Your task to perform on an android device: Search for "alienware area 51" on bestbuy.com, select the first entry, add it to the cart, then select checkout. Image 0: 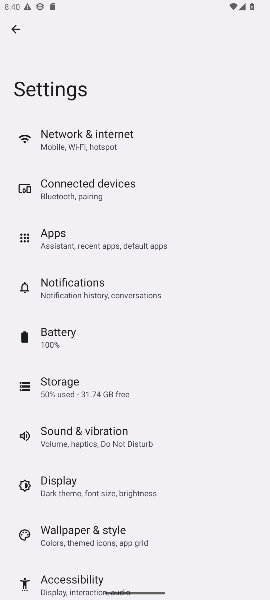
Step 0: press home button
Your task to perform on an android device: Search for "alienware area 51" on bestbuy.com, select the first entry, add it to the cart, then select checkout. Image 1: 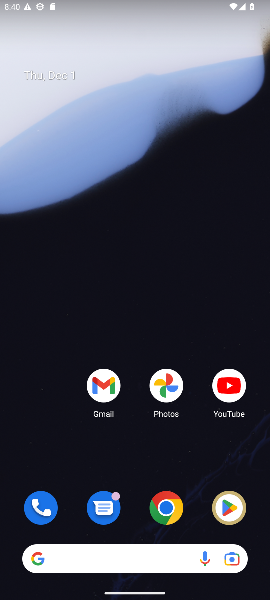
Step 1: click (165, 511)
Your task to perform on an android device: Search for "alienware area 51" on bestbuy.com, select the first entry, add it to the cart, then select checkout. Image 2: 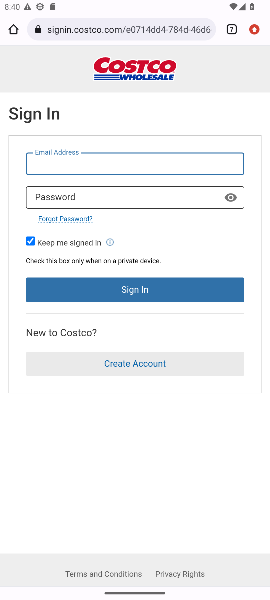
Step 2: click (230, 29)
Your task to perform on an android device: Search for "alienware area 51" on bestbuy.com, select the first entry, add it to the cart, then select checkout. Image 3: 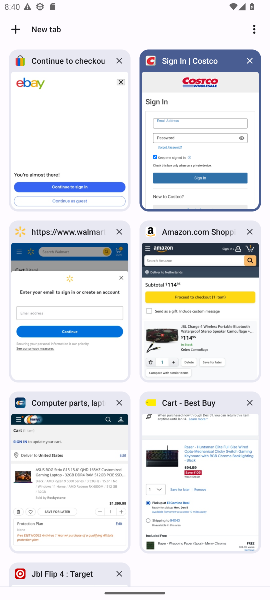
Step 3: click (184, 428)
Your task to perform on an android device: Search for "alienware area 51" on bestbuy.com, select the first entry, add it to the cart, then select checkout. Image 4: 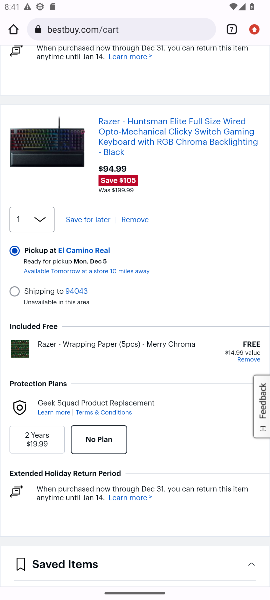
Step 4: drag from (134, 92) to (119, 383)
Your task to perform on an android device: Search for "alienware area 51" on bestbuy.com, select the first entry, add it to the cart, then select checkout. Image 5: 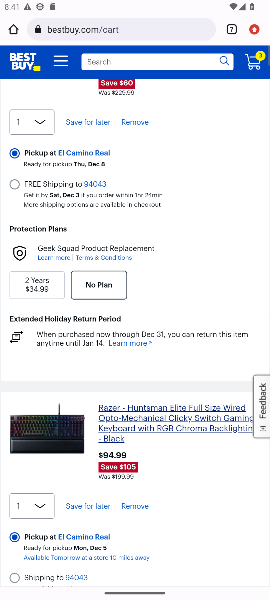
Step 5: click (109, 64)
Your task to perform on an android device: Search for "alienware area 51" on bestbuy.com, select the first entry, add it to the cart, then select checkout. Image 6: 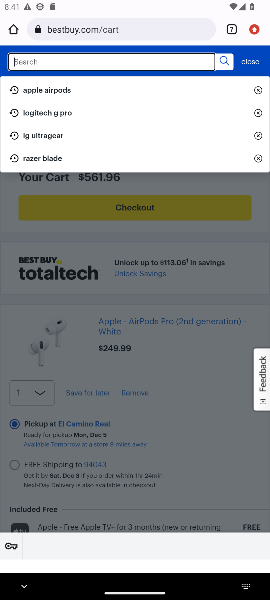
Step 6: type "alienware area 51"
Your task to perform on an android device: Search for "alienware area 51" on bestbuy.com, select the first entry, add it to the cart, then select checkout. Image 7: 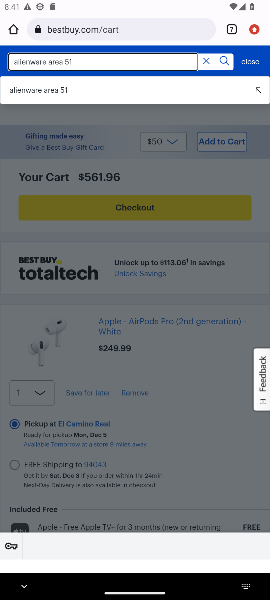
Step 7: click (223, 59)
Your task to perform on an android device: Search for "alienware area 51" on bestbuy.com, select the first entry, add it to the cart, then select checkout. Image 8: 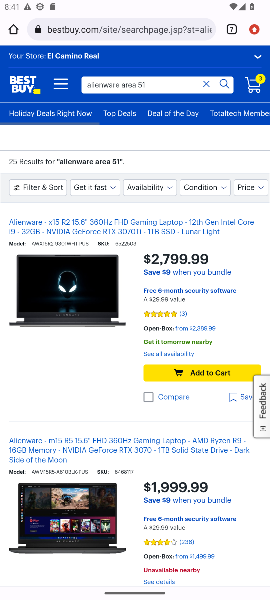
Step 8: click (86, 323)
Your task to perform on an android device: Search for "alienware area 51" on bestbuy.com, select the first entry, add it to the cart, then select checkout. Image 9: 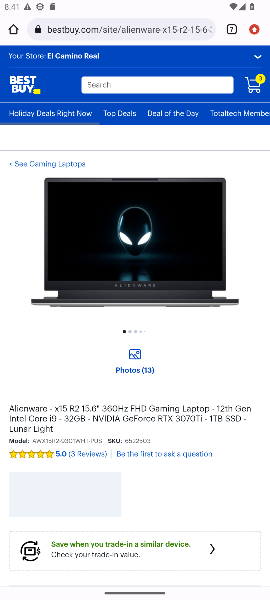
Step 9: drag from (201, 494) to (177, 152)
Your task to perform on an android device: Search for "alienware area 51" on bestbuy.com, select the first entry, add it to the cart, then select checkout. Image 10: 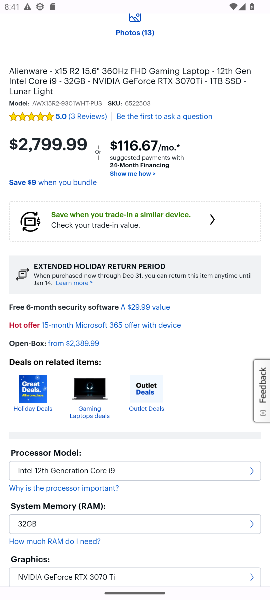
Step 10: drag from (192, 435) to (199, 142)
Your task to perform on an android device: Search for "alienware area 51" on bestbuy.com, select the first entry, add it to the cart, then select checkout. Image 11: 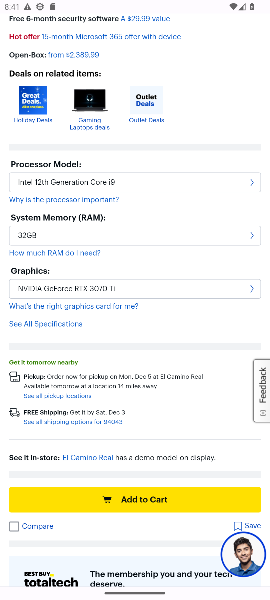
Step 11: click (113, 495)
Your task to perform on an android device: Search for "alienware area 51" on bestbuy.com, select the first entry, add it to the cart, then select checkout. Image 12: 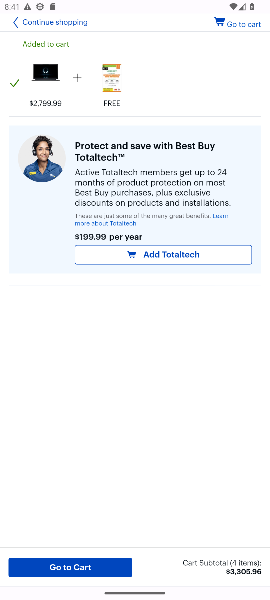
Step 12: click (79, 568)
Your task to perform on an android device: Search for "alienware area 51" on bestbuy.com, select the first entry, add it to the cart, then select checkout. Image 13: 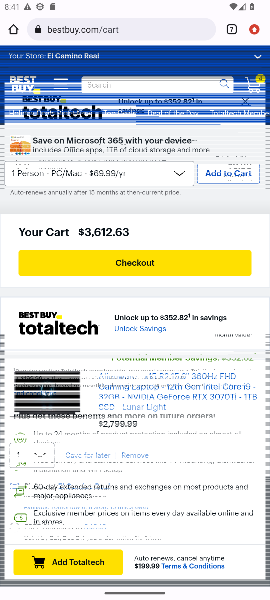
Step 13: click (126, 272)
Your task to perform on an android device: Search for "alienware area 51" on bestbuy.com, select the first entry, add it to the cart, then select checkout. Image 14: 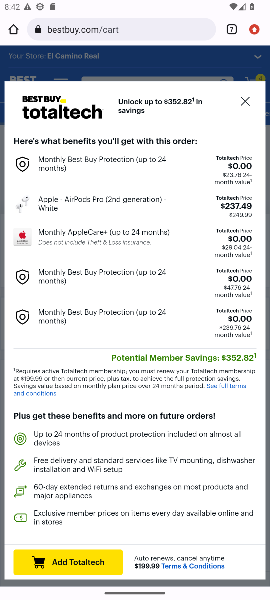
Step 14: click (242, 103)
Your task to perform on an android device: Search for "alienware area 51" on bestbuy.com, select the first entry, add it to the cart, then select checkout. Image 15: 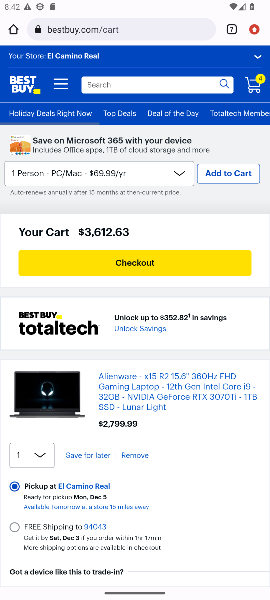
Step 15: click (119, 264)
Your task to perform on an android device: Search for "alienware area 51" on bestbuy.com, select the first entry, add it to the cart, then select checkout. Image 16: 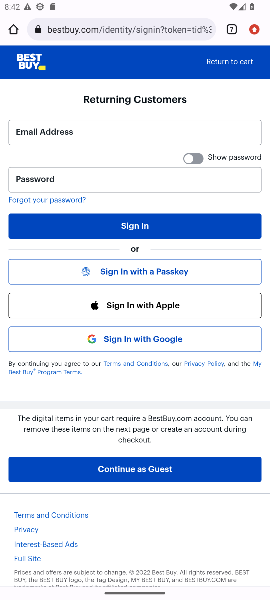
Step 16: task complete